Your task to perform on an android device: turn off picture-in-picture Image 0: 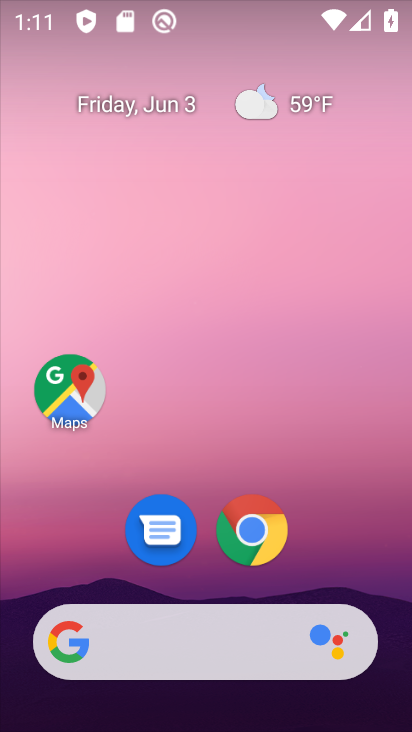
Step 0: click (258, 521)
Your task to perform on an android device: turn off picture-in-picture Image 1: 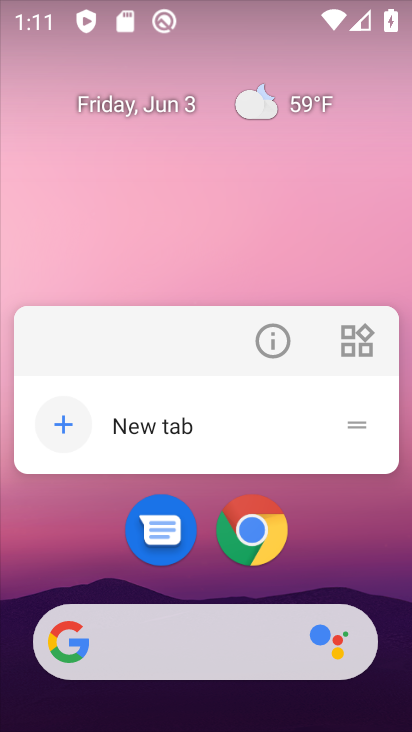
Step 1: click (272, 327)
Your task to perform on an android device: turn off picture-in-picture Image 2: 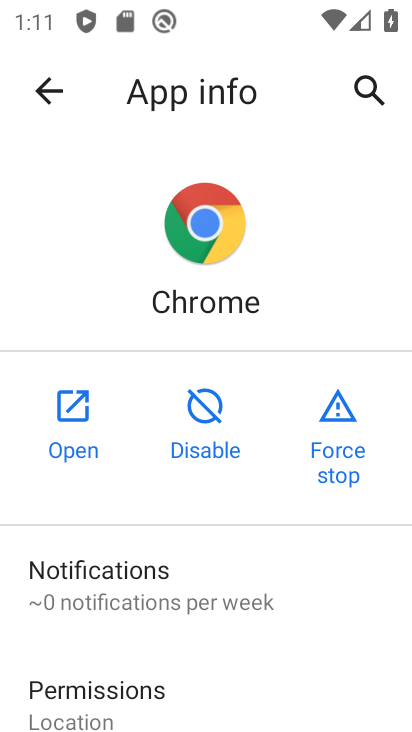
Step 2: drag from (226, 639) to (170, 86)
Your task to perform on an android device: turn off picture-in-picture Image 3: 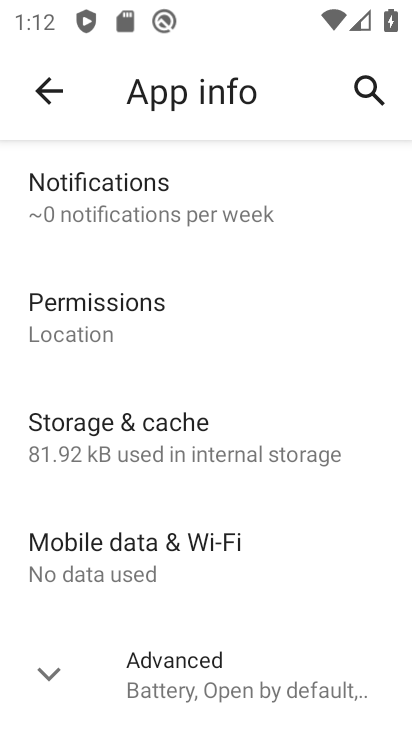
Step 3: click (144, 662)
Your task to perform on an android device: turn off picture-in-picture Image 4: 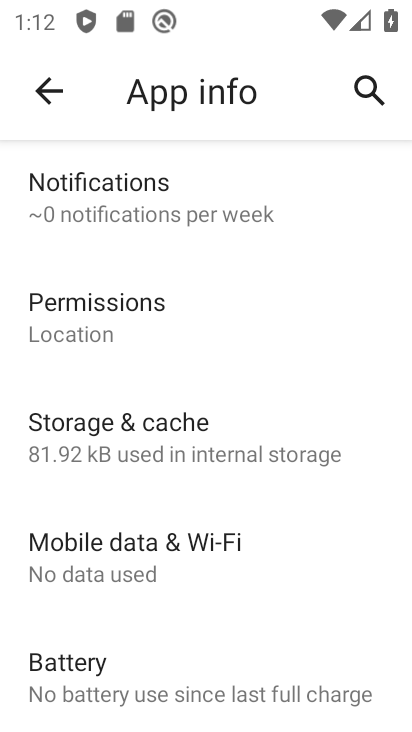
Step 4: drag from (141, 654) to (173, 1)
Your task to perform on an android device: turn off picture-in-picture Image 5: 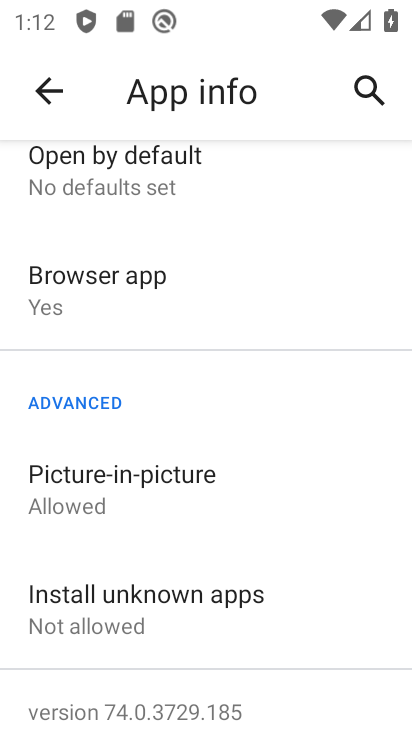
Step 5: click (164, 508)
Your task to perform on an android device: turn off picture-in-picture Image 6: 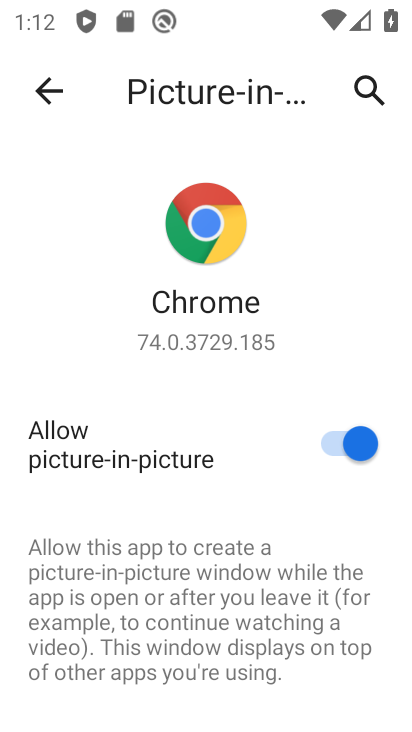
Step 6: click (351, 442)
Your task to perform on an android device: turn off picture-in-picture Image 7: 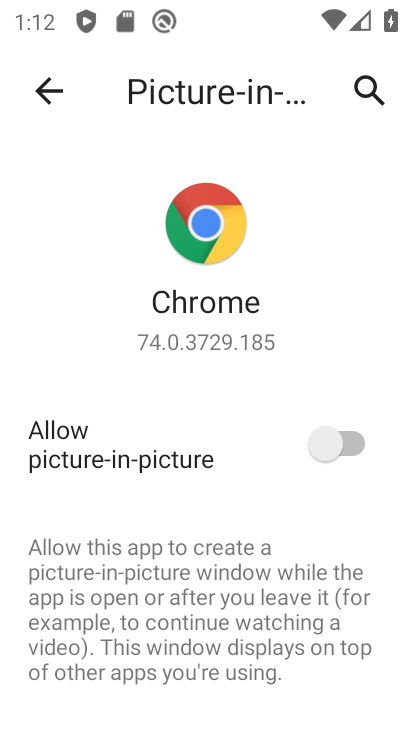
Step 7: task complete